Your task to perform on an android device: check android version Image 0: 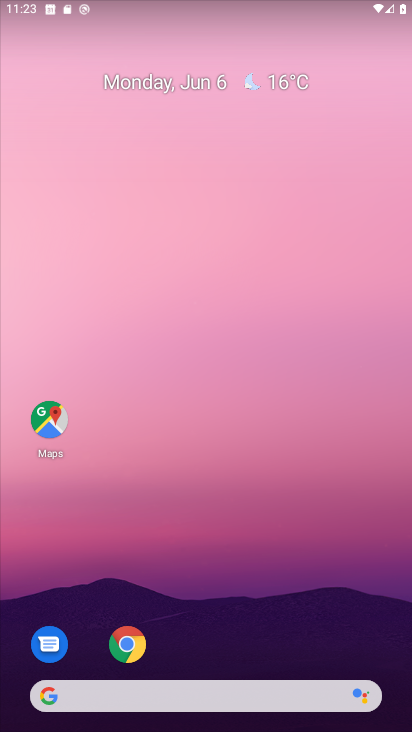
Step 0: click (245, 244)
Your task to perform on an android device: check android version Image 1: 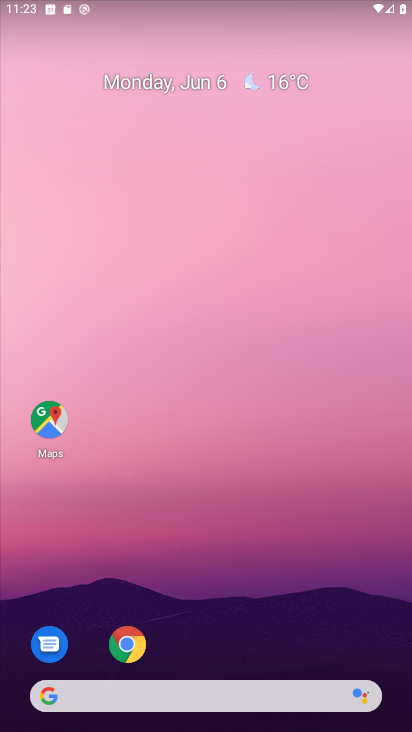
Step 1: drag from (193, 669) to (301, 170)
Your task to perform on an android device: check android version Image 2: 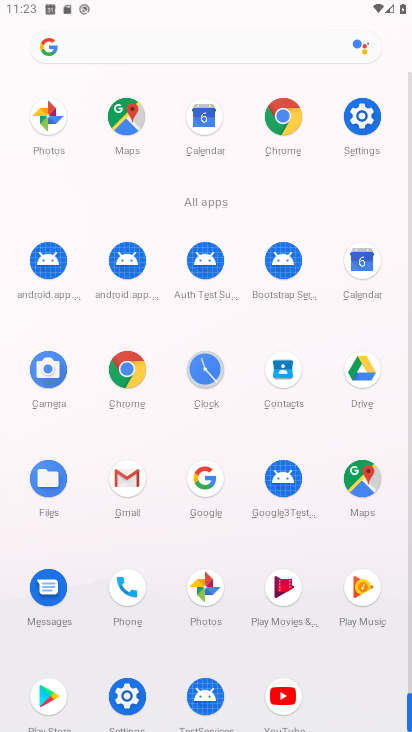
Step 2: drag from (192, 668) to (262, 394)
Your task to perform on an android device: check android version Image 3: 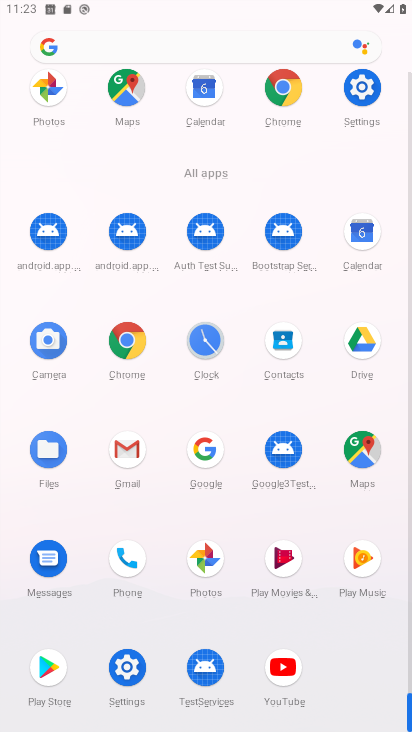
Step 3: click (127, 670)
Your task to perform on an android device: check android version Image 4: 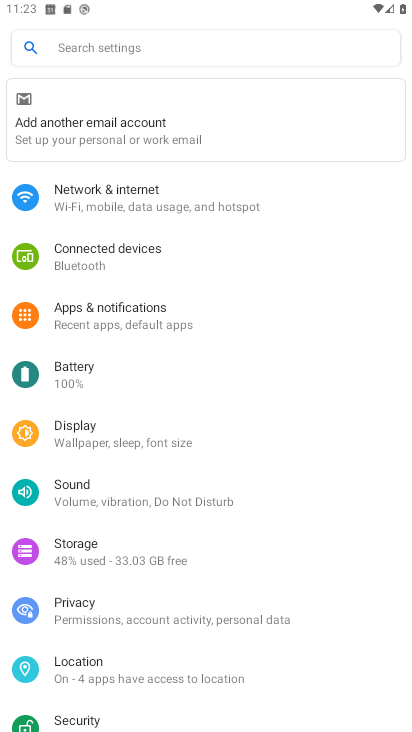
Step 4: drag from (140, 672) to (310, 82)
Your task to perform on an android device: check android version Image 5: 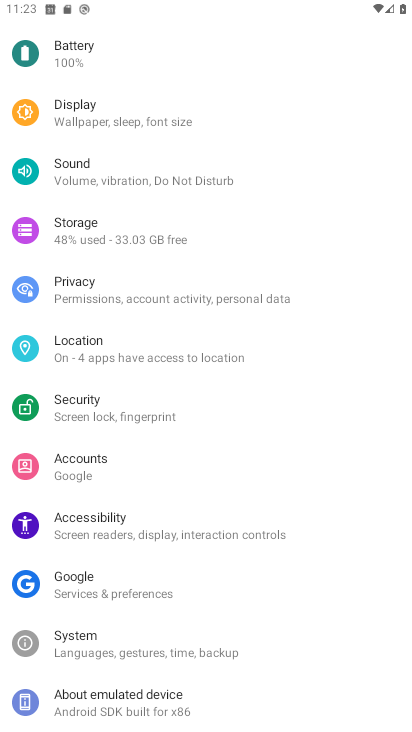
Step 5: click (188, 707)
Your task to perform on an android device: check android version Image 6: 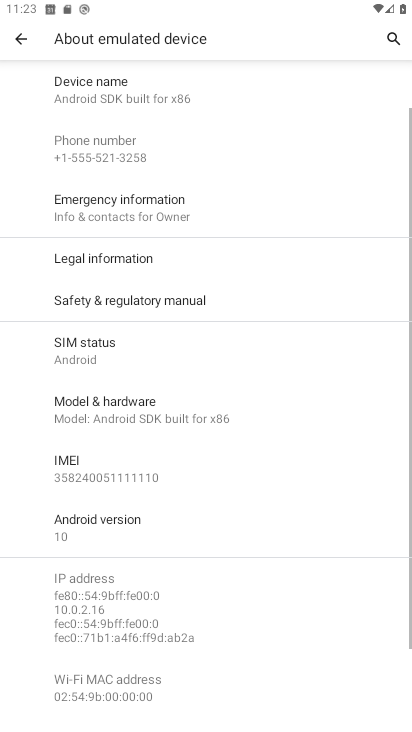
Step 6: click (176, 527)
Your task to perform on an android device: check android version Image 7: 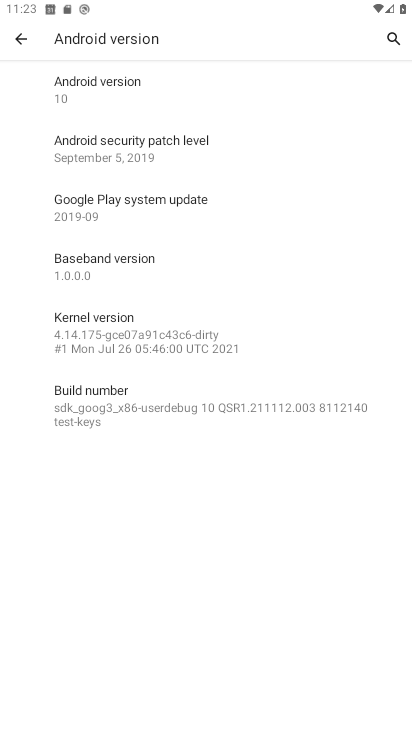
Step 7: task complete